Your task to perform on an android device: manage bookmarks in the chrome app Image 0: 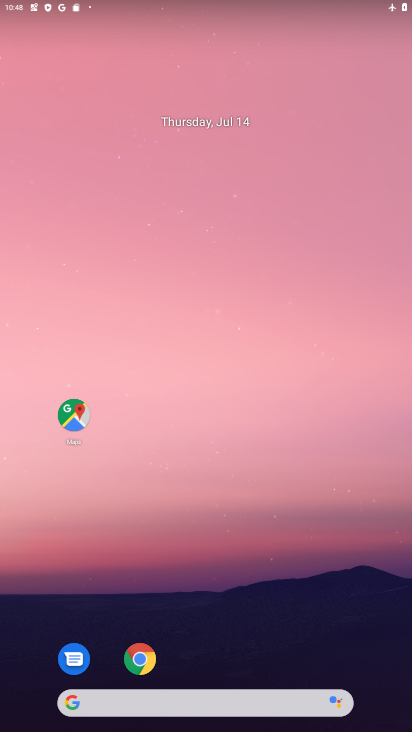
Step 0: drag from (285, 602) to (273, 141)
Your task to perform on an android device: manage bookmarks in the chrome app Image 1: 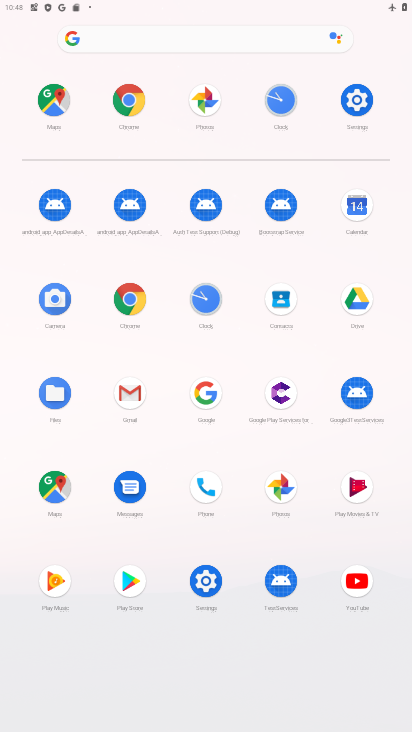
Step 1: click (133, 301)
Your task to perform on an android device: manage bookmarks in the chrome app Image 2: 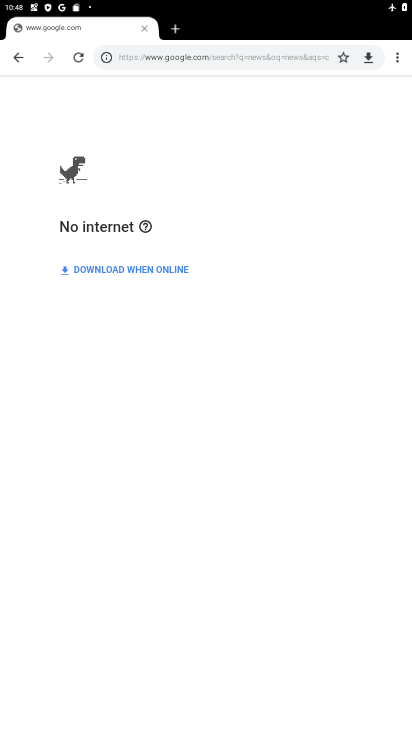
Step 2: drag from (399, 52) to (276, 111)
Your task to perform on an android device: manage bookmarks in the chrome app Image 3: 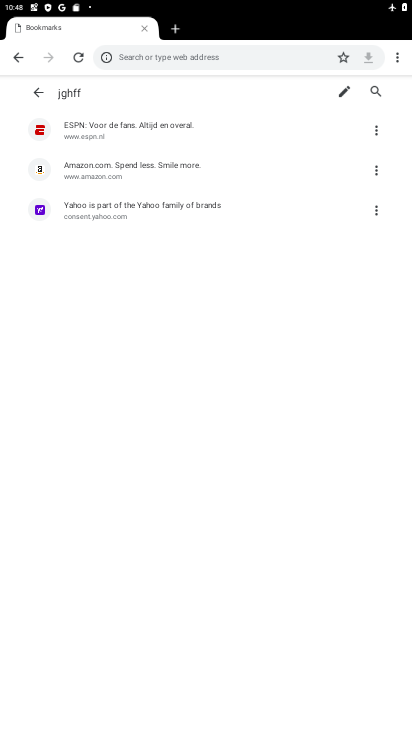
Step 3: click (377, 127)
Your task to perform on an android device: manage bookmarks in the chrome app Image 4: 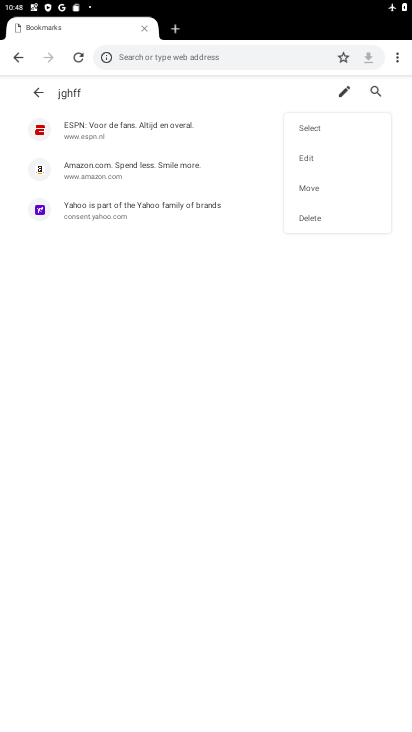
Step 4: click (313, 216)
Your task to perform on an android device: manage bookmarks in the chrome app Image 5: 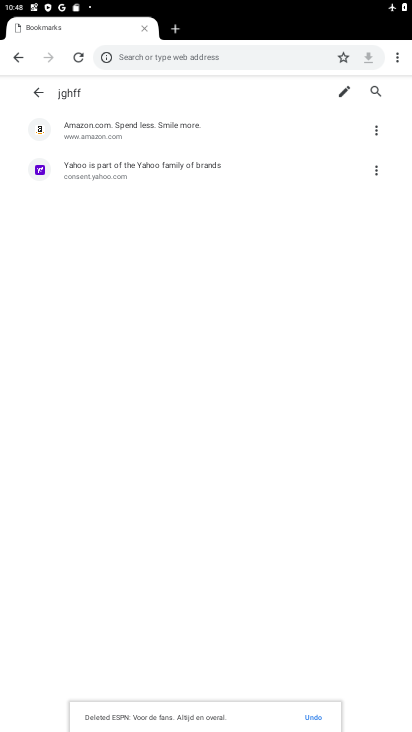
Step 5: task complete